Your task to perform on an android device: open app "Adobe Express: Graphic Design" (install if not already installed) and go to login screen Image 0: 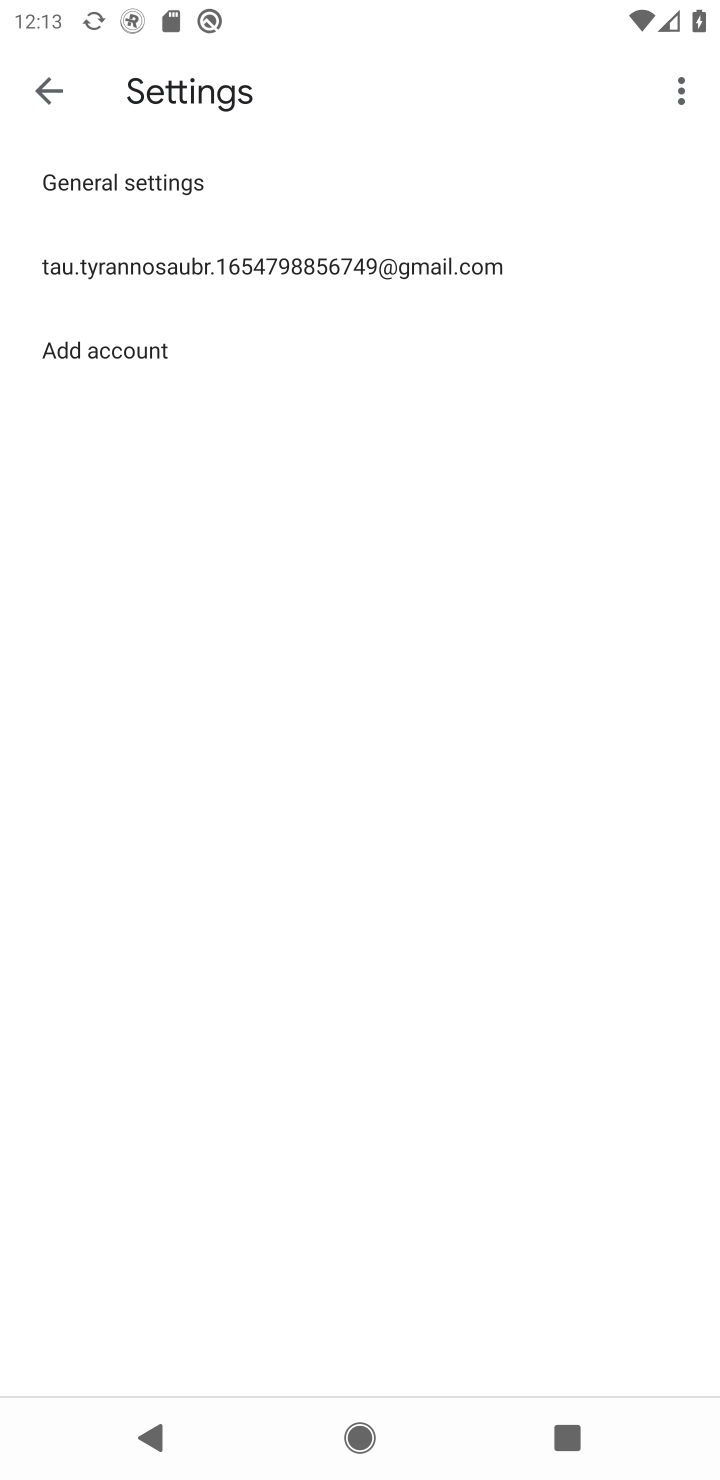
Step 0: press home button
Your task to perform on an android device: open app "Adobe Express: Graphic Design" (install if not already installed) and go to login screen Image 1: 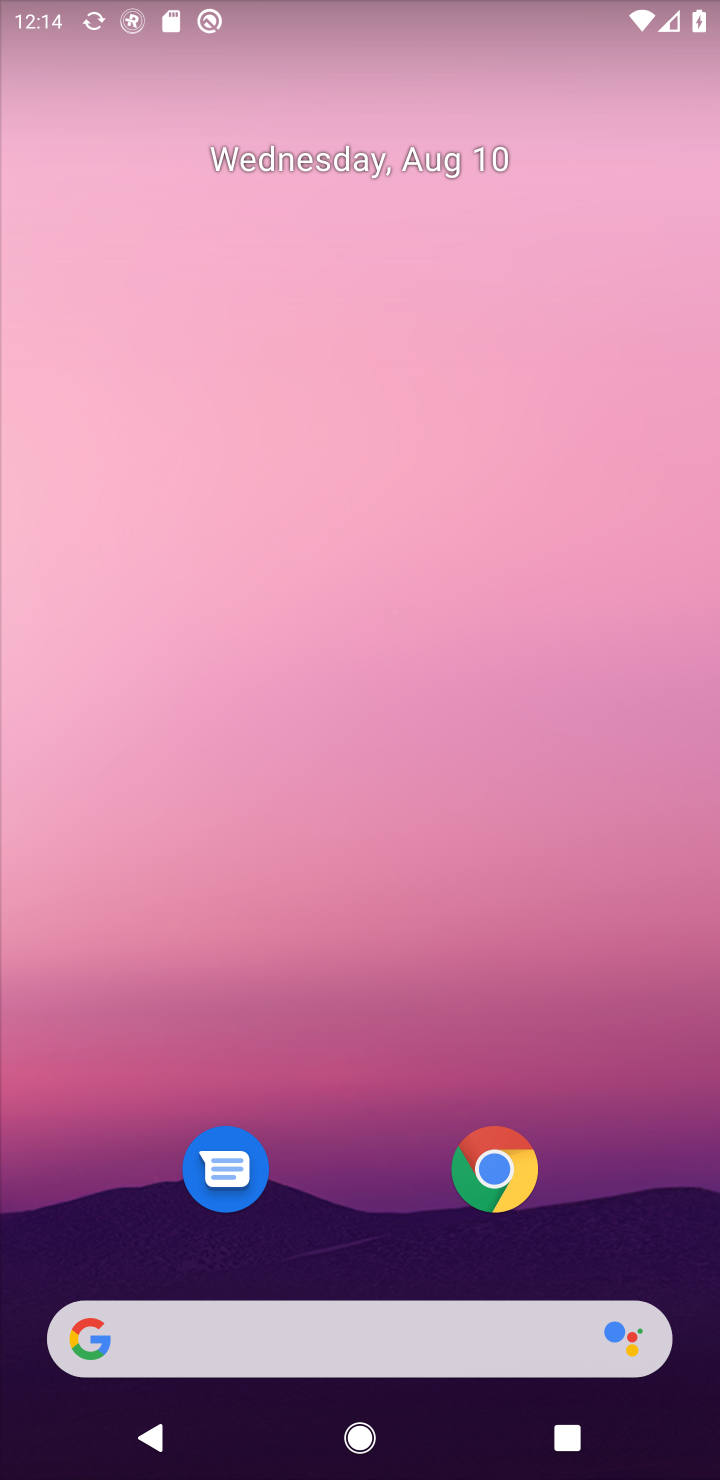
Step 1: drag from (593, 966) to (585, 133)
Your task to perform on an android device: open app "Adobe Express: Graphic Design" (install if not already installed) and go to login screen Image 2: 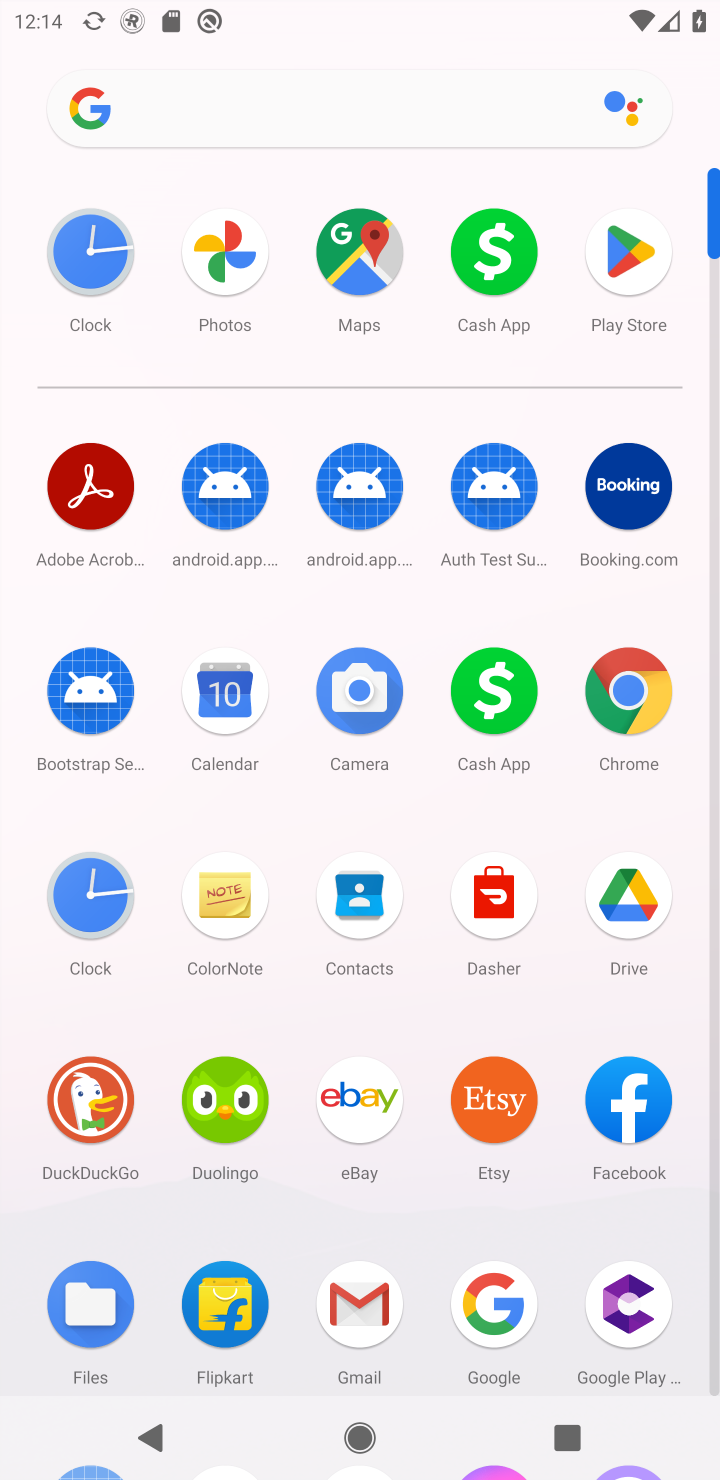
Step 2: click (630, 263)
Your task to perform on an android device: open app "Adobe Express: Graphic Design" (install if not already installed) and go to login screen Image 3: 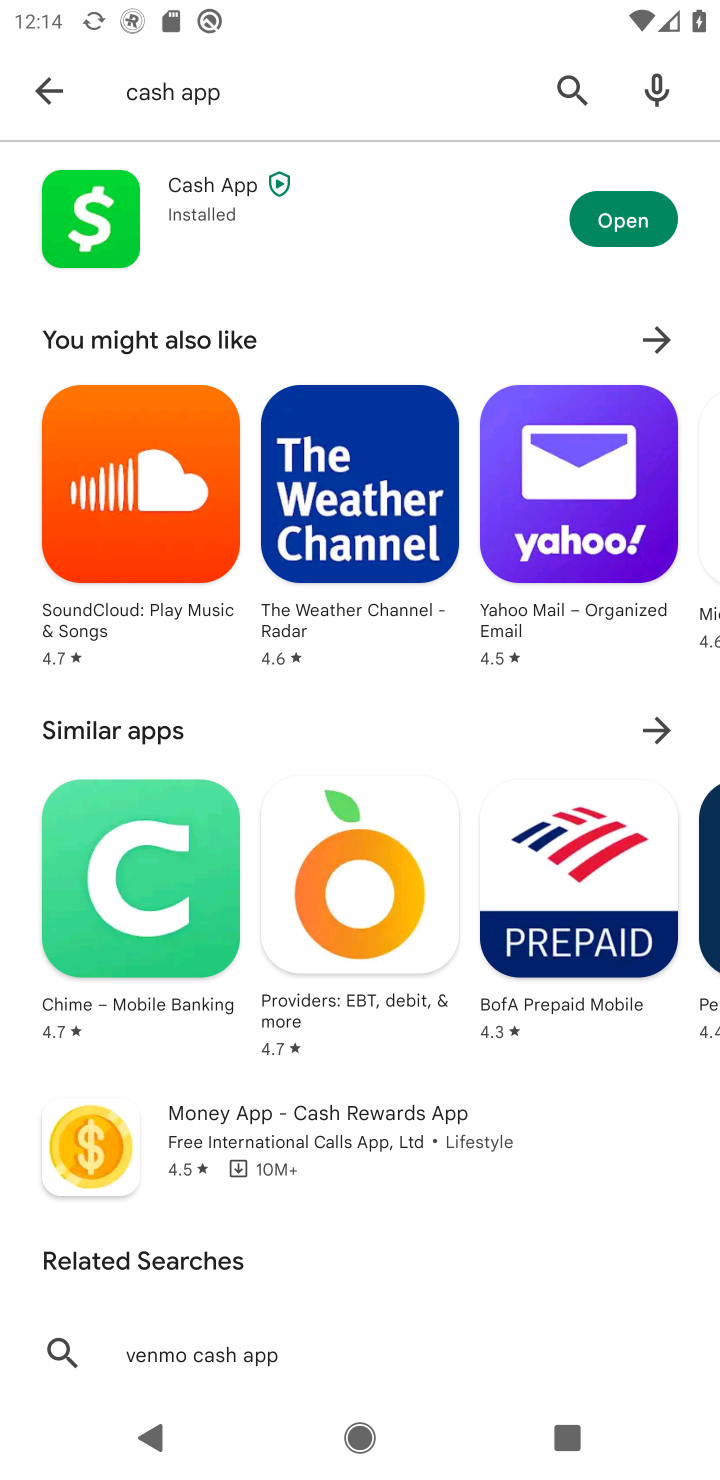
Step 3: click (557, 90)
Your task to perform on an android device: open app "Adobe Express: Graphic Design" (install if not already installed) and go to login screen Image 4: 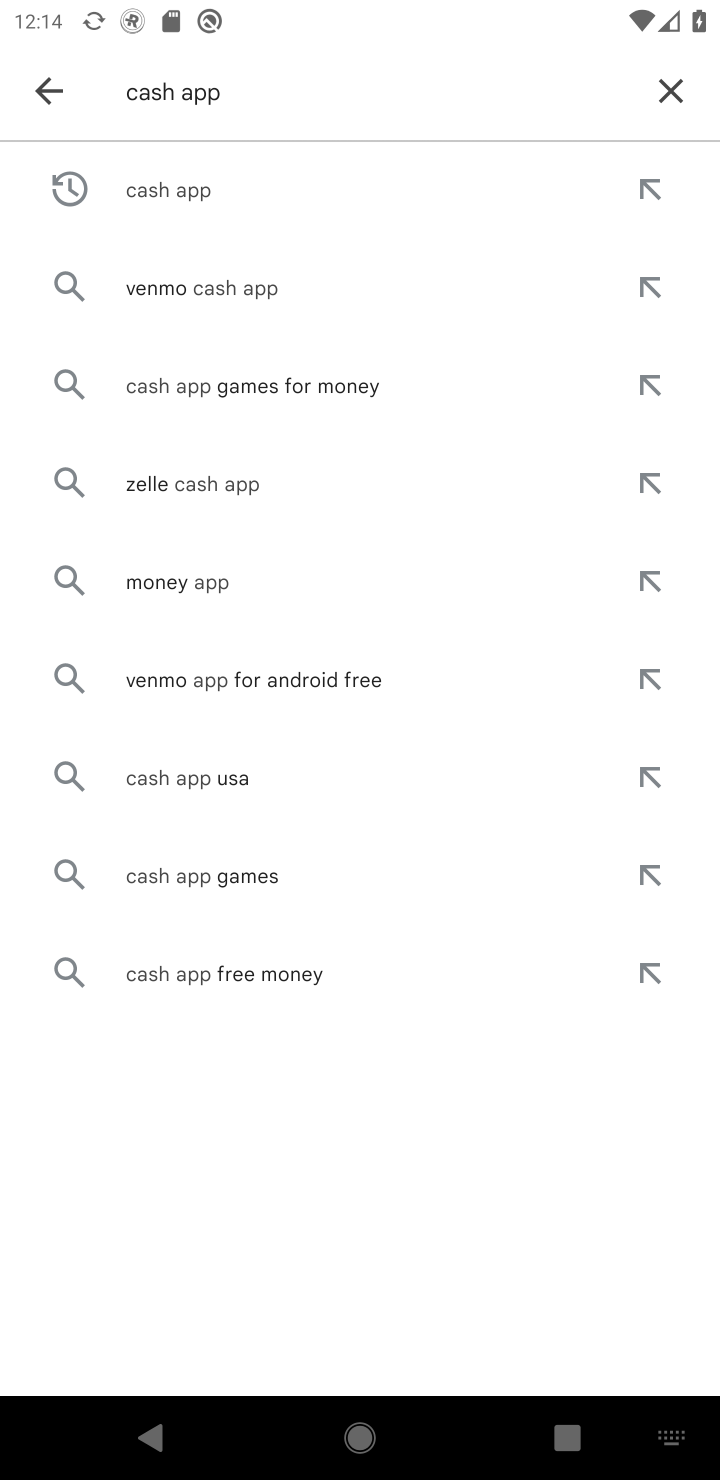
Step 4: click (698, 75)
Your task to perform on an android device: open app "Adobe Express: Graphic Design" (install if not already installed) and go to login screen Image 5: 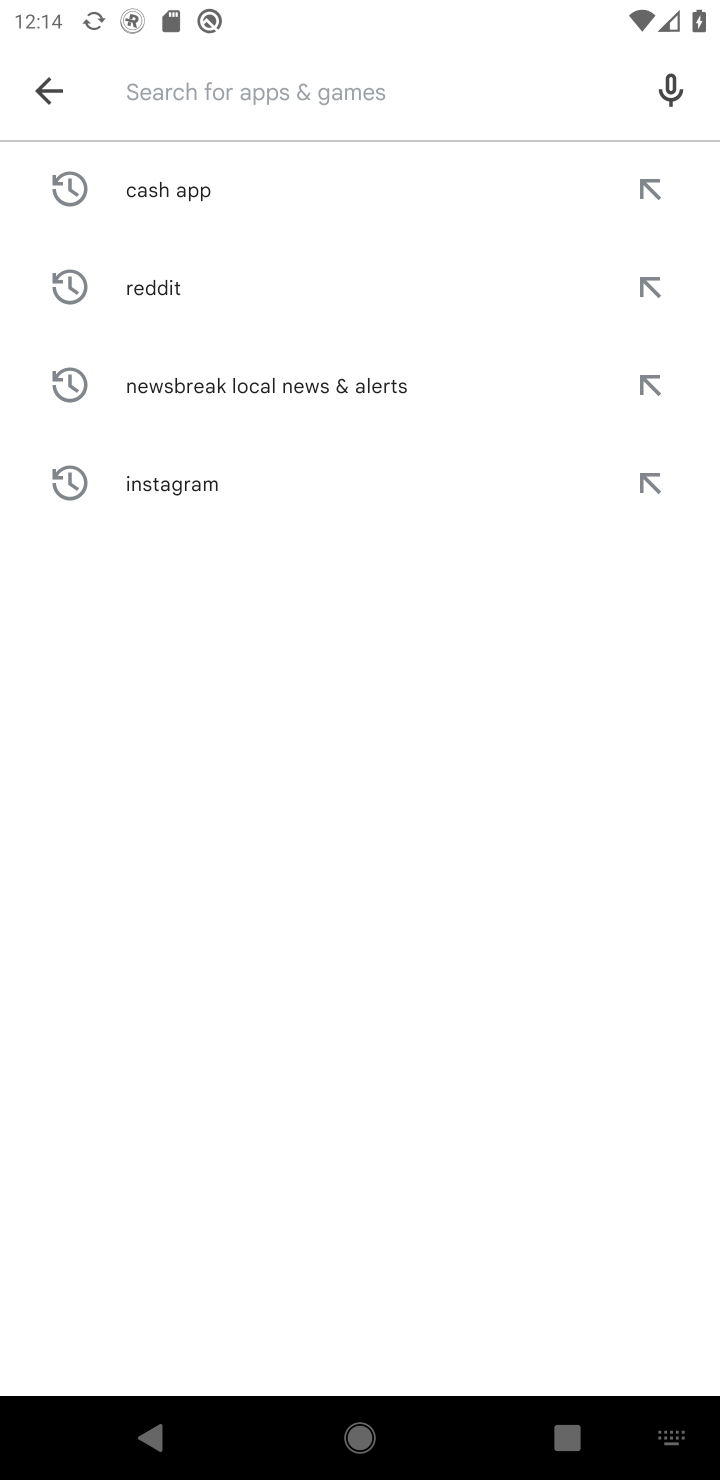
Step 5: type "Adobe Express: Graphic Design"
Your task to perform on an android device: open app "Adobe Express: Graphic Design" (install if not already installed) and go to login screen Image 6: 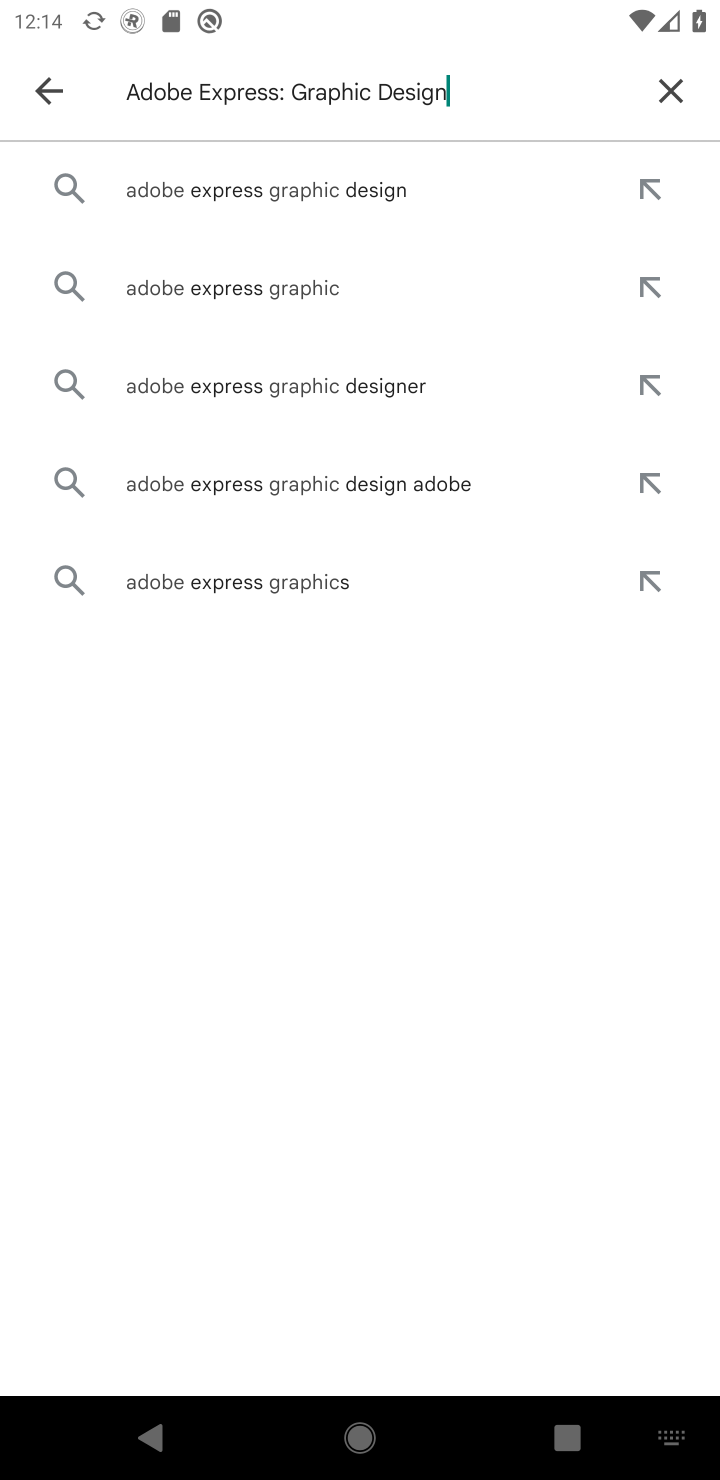
Step 6: press enter
Your task to perform on an android device: open app "Adobe Express: Graphic Design" (install if not already installed) and go to login screen Image 7: 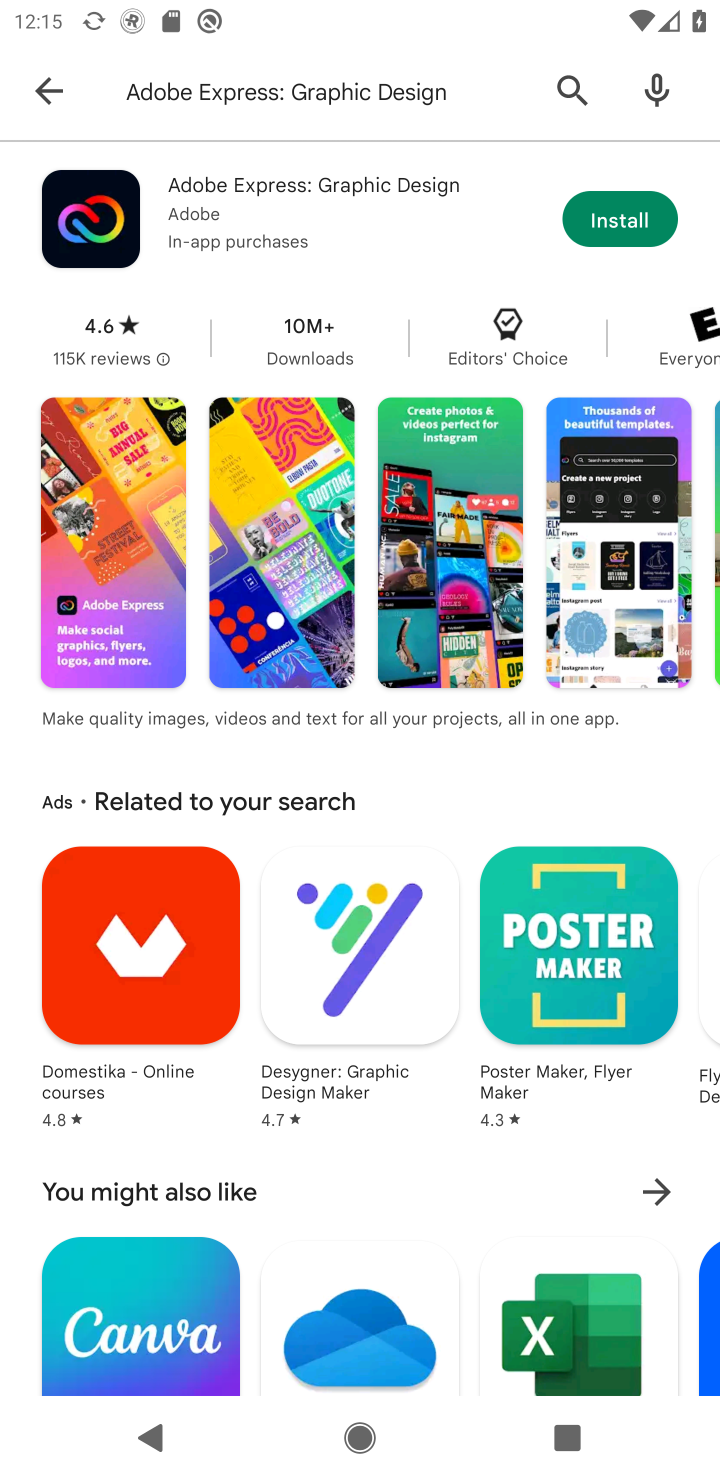
Step 7: click (622, 217)
Your task to perform on an android device: open app "Adobe Express: Graphic Design" (install if not already installed) and go to login screen Image 8: 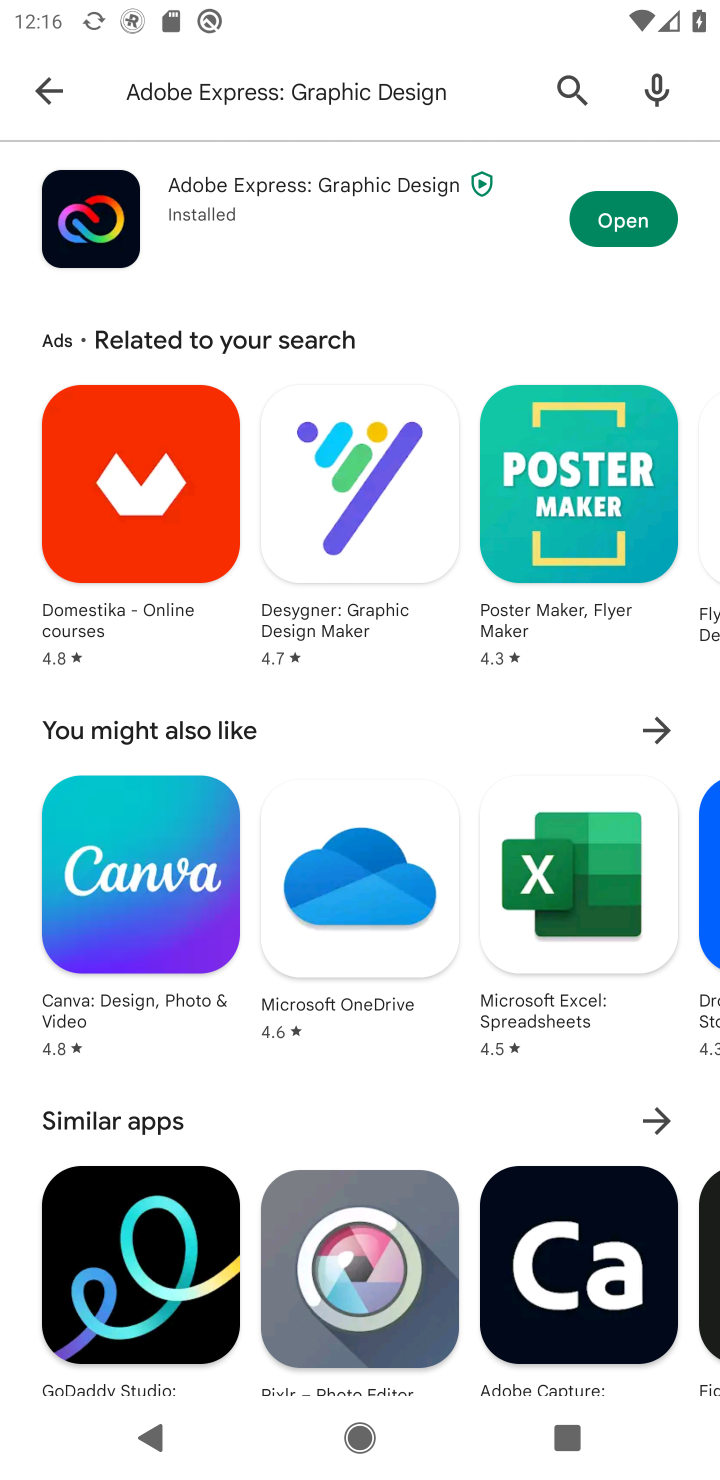
Step 8: click (613, 219)
Your task to perform on an android device: open app "Adobe Express: Graphic Design" (install if not already installed) and go to login screen Image 9: 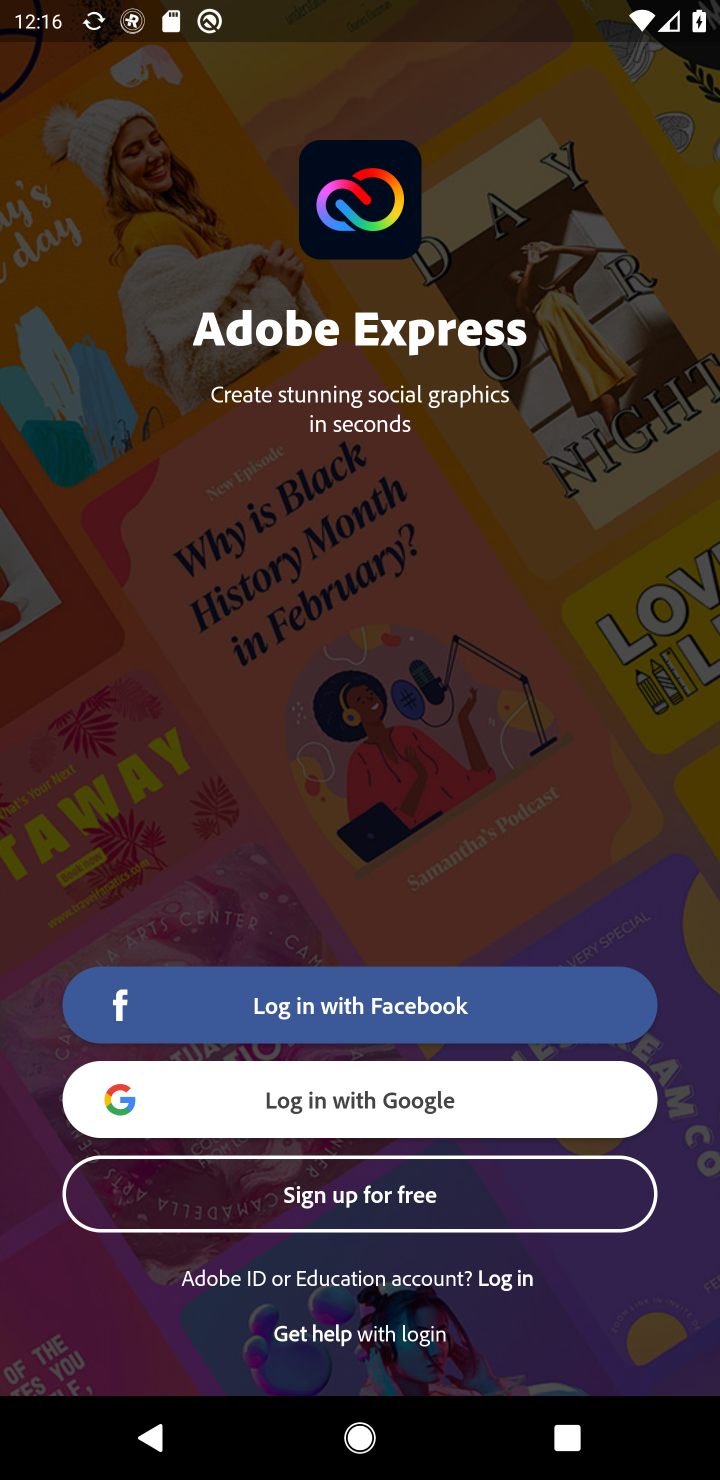
Step 9: task complete